Your task to perform on an android device: Is it going to rain tomorrow? Image 0: 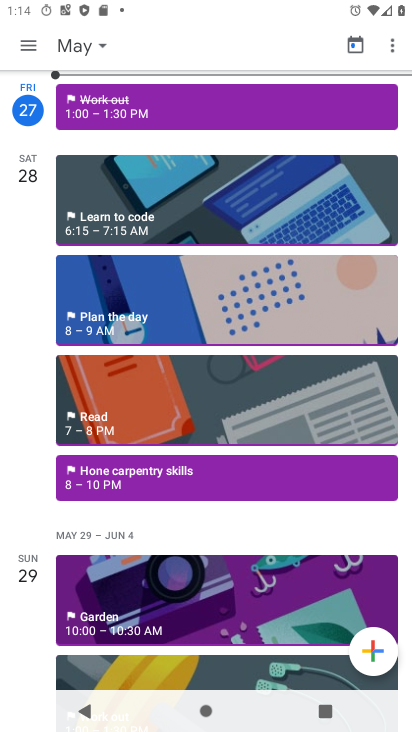
Step 0: press home button
Your task to perform on an android device: Is it going to rain tomorrow? Image 1: 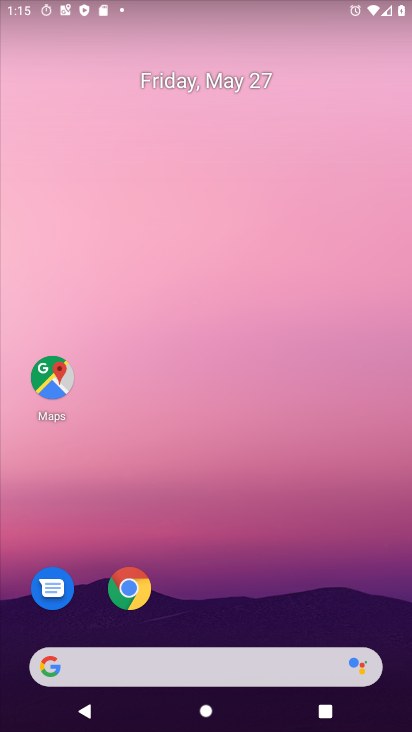
Step 1: drag from (7, 251) to (408, 245)
Your task to perform on an android device: Is it going to rain tomorrow? Image 2: 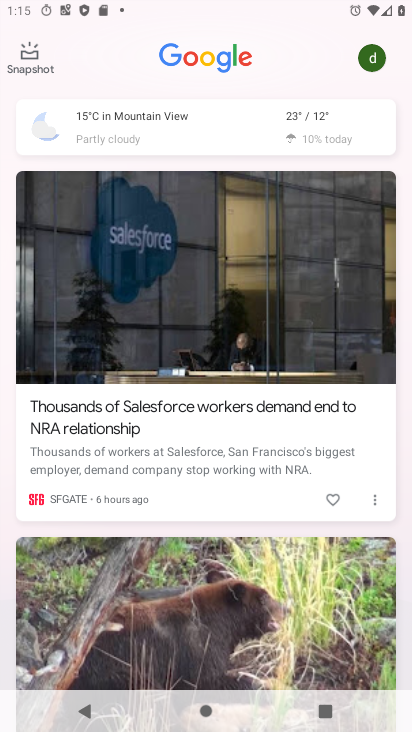
Step 2: click (305, 116)
Your task to perform on an android device: Is it going to rain tomorrow? Image 3: 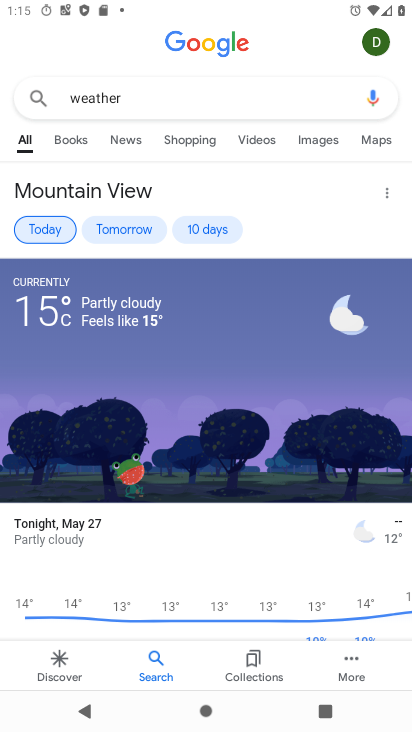
Step 3: task complete